Your task to perform on an android device: visit the assistant section in the google photos Image 0: 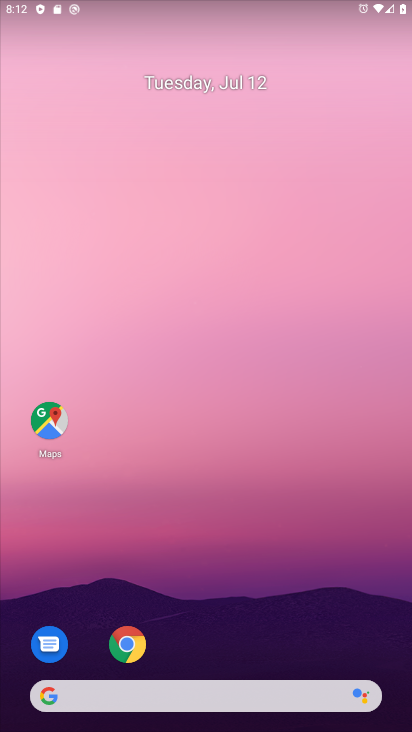
Step 0: click (34, 690)
Your task to perform on an android device: visit the assistant section in the google photos Image 1: 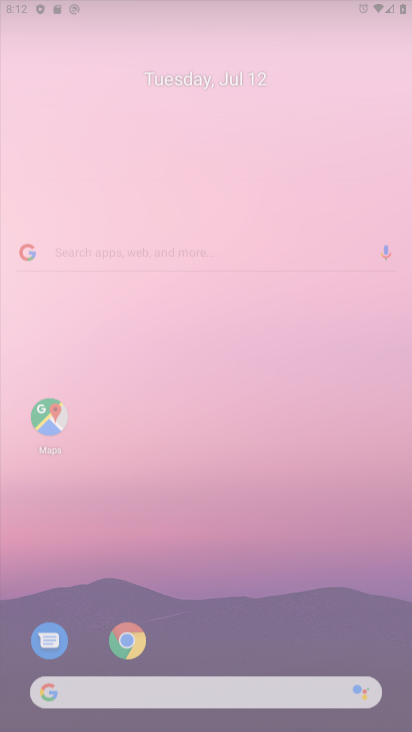
Step 1: drag from (39, 642) to (186, 182)
Your task to perform on an android device: visit the assistant section in the google photos Image 2: 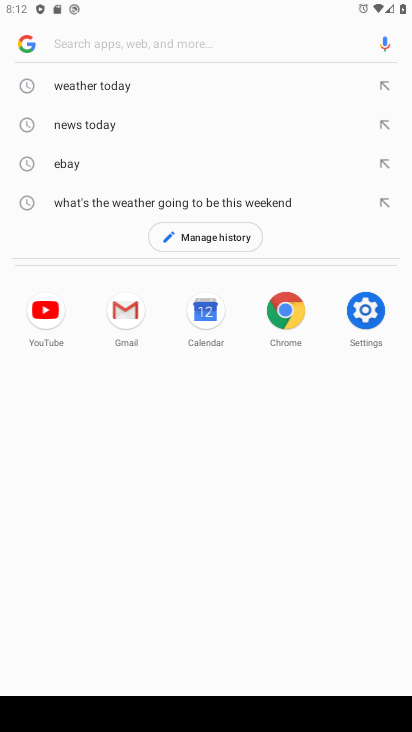
Step 2: press home button
Your task to perform on an android device: visit the assistant section in the google photos Image 3: 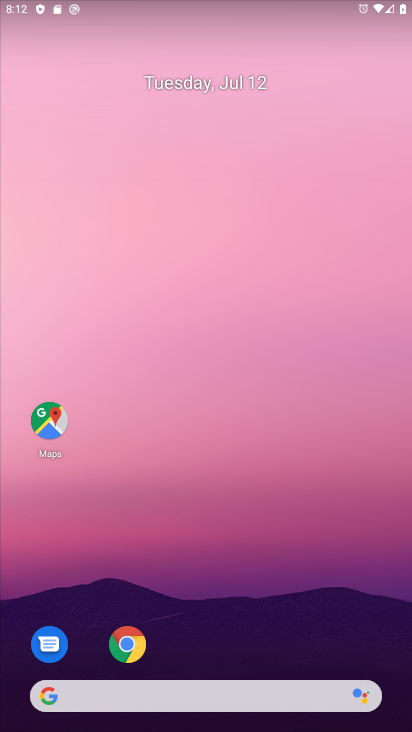
Step 3: click (286, 57)
Your task to perform on an android device: visit the assistant section in the google photos Image 4: 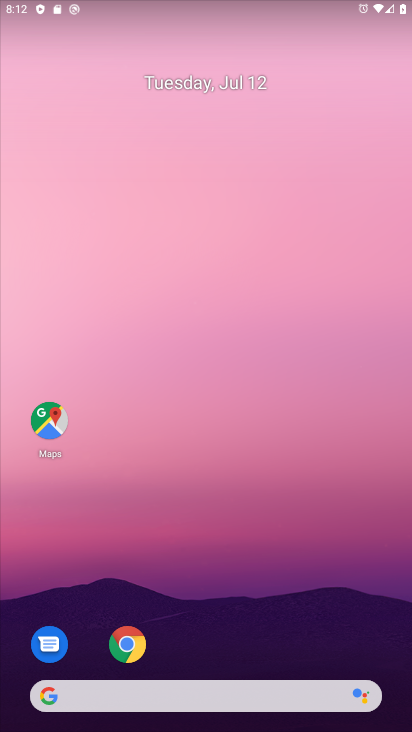
Step 4: drag from (18, 713) to (356, 5)
Your task to perform on an android device: visit the assistant section in the google photos Image 5: 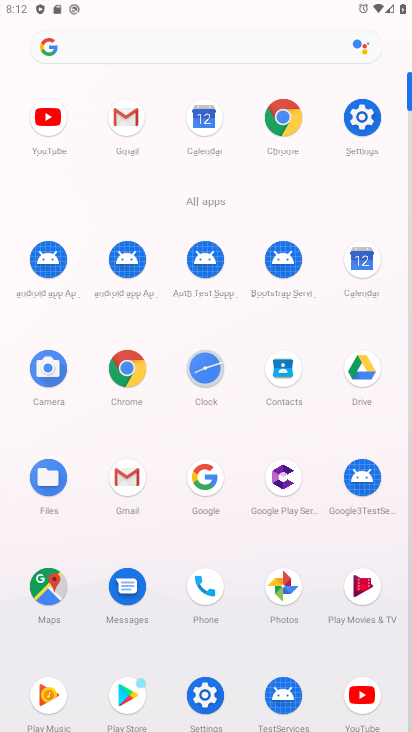
Step 5: click (270, 605)
Your task to perform on an android device: visit the assistant section in the google photos Image 6: 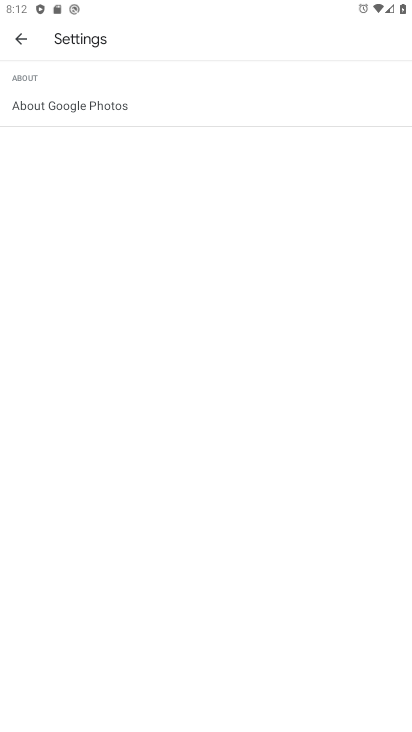
Step 6: click (19, 42)
Your task to perform on an android device: visit the assistant section in the google photos Image 7: 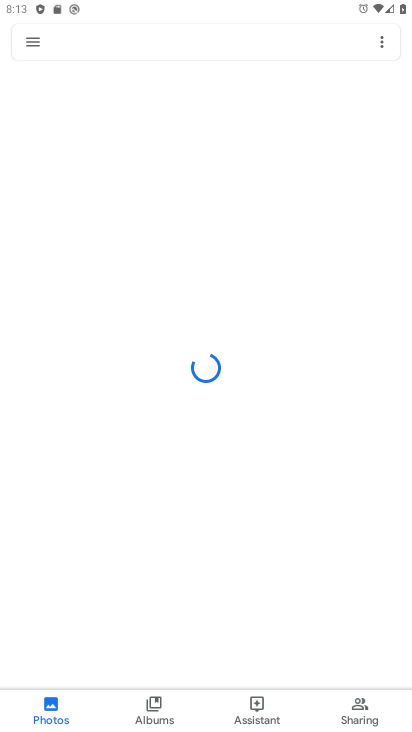
Step 7: click (255, 712)
Your task to perform on an android device: visit the assistant section in the google photos Image 8: 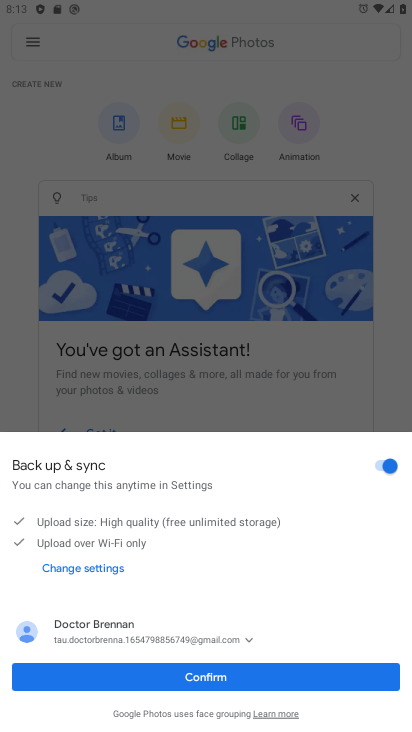
Step 8: click (178, 678)
Your task to perform on an android device: visit the assistant section in the google photos Image 9: 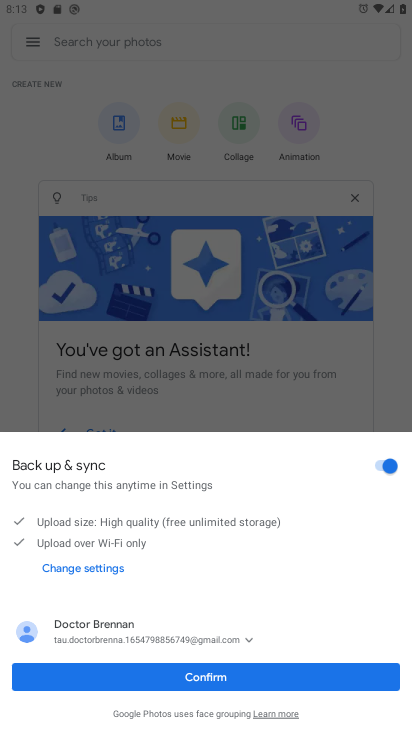
Step 9: click (208, 671)
Your task to perform on an android device: visit the assistant section in the google photos Image 10: 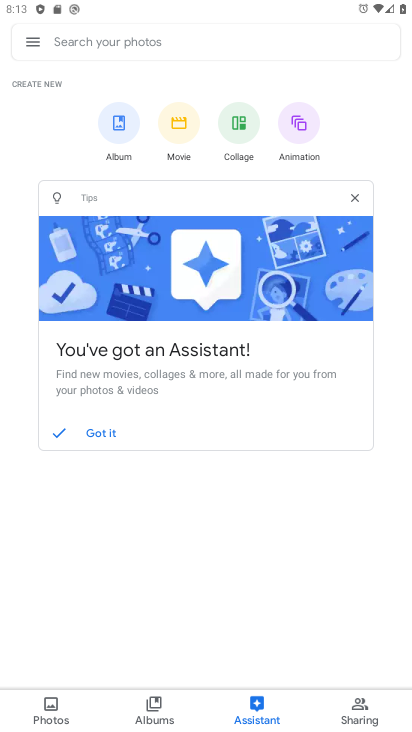
Step 10: task complete